Your task to perform on an android device: Open the stopwatch Image 0: 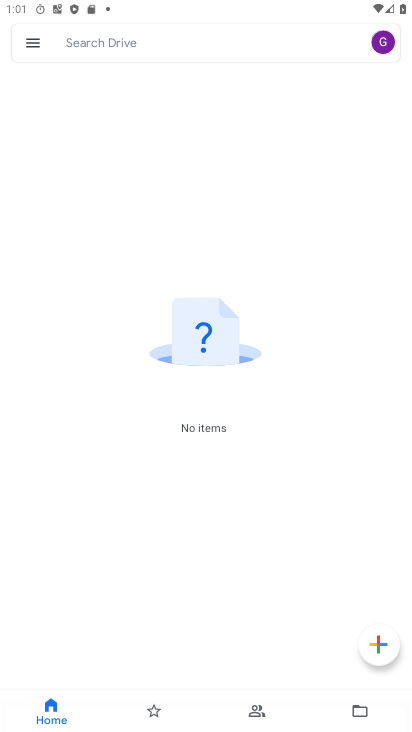
Step 0: drag from (229, 515) to (263, 298)
Your task to perform on an android device: Open the stopwatch Image 1: 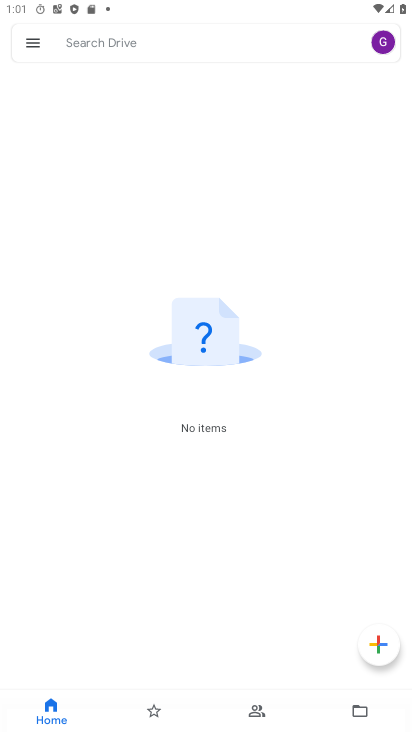
Step 1: press home button
Your task to perform on an android device: Open the stopwatch Image 2: 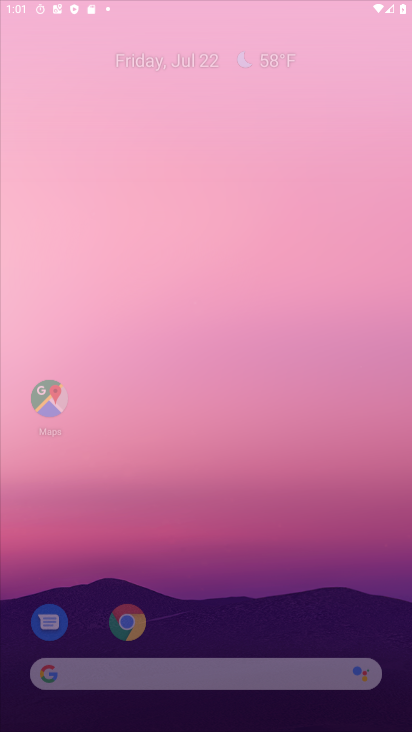
Step 2: drag from (242, 555) to (340, 29)
Your task to perform on an android device: Open the stopwatch Image 3: 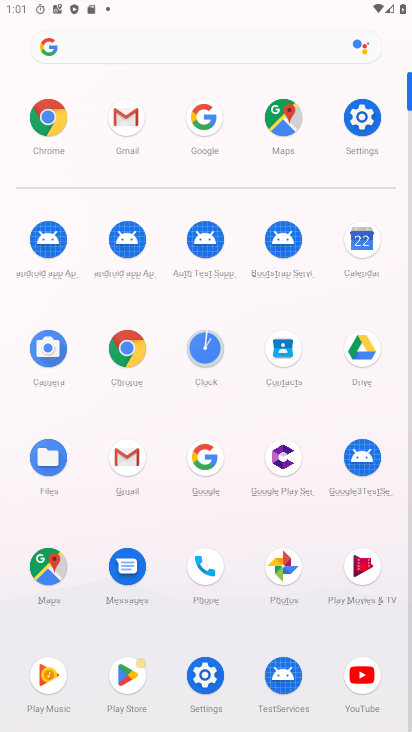
Step 3: click (209, 343)
Your task to perform on an android device: Open the stopwatch Image 4: 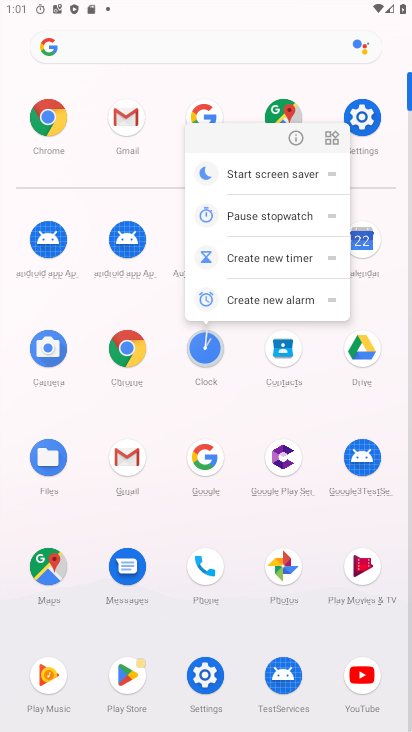
Step 4: click (298, 136)
Your task to perform on an android device: Open the stopwatch Image 5: 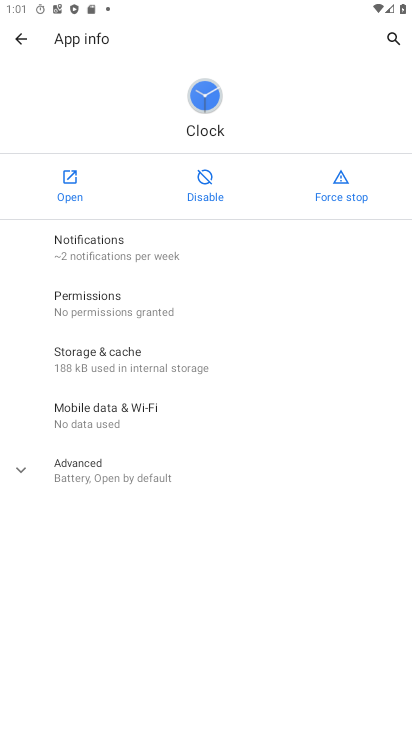
Step 5: click (74, 190)
Your task to perform on an android device: Open the stopwatch Image 6: 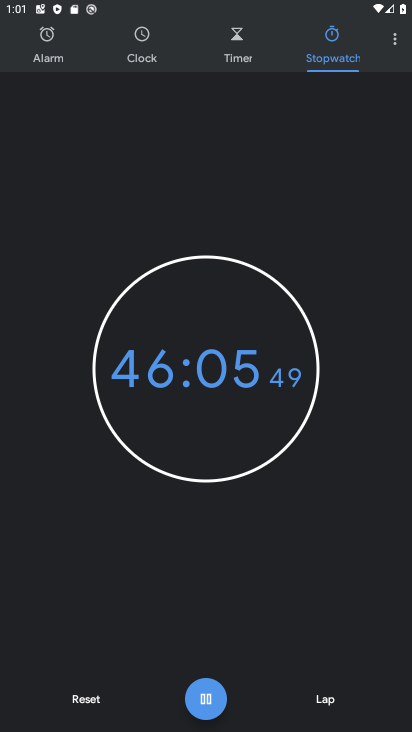
Step 6: task complete